Your task to perform on an android device: Open eBay Image 0: 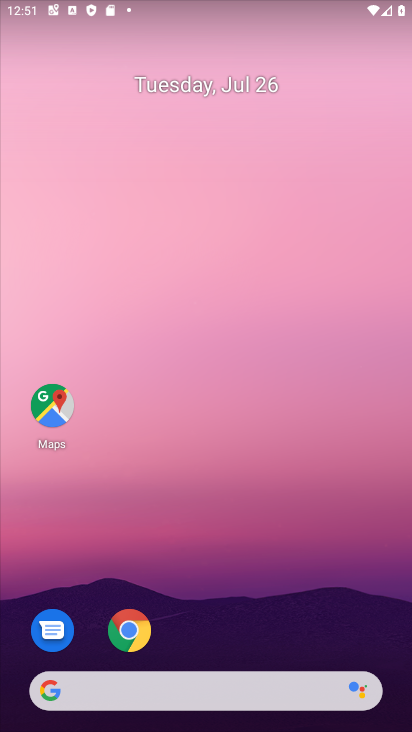
Step 0: click (131, 632)
Your task to perform on an android device: Open eBay Image 1: 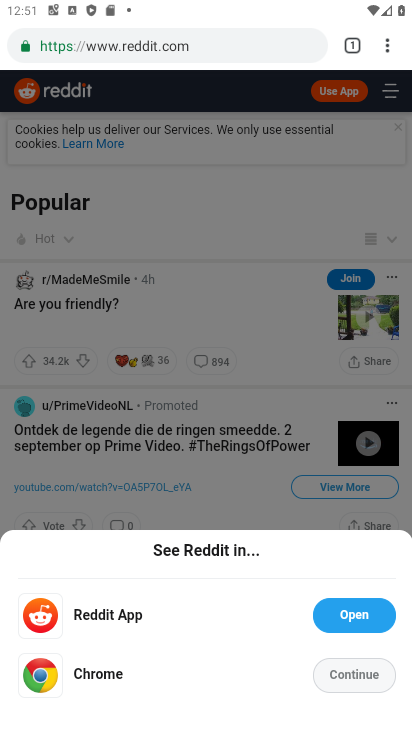
Step 1: click (214, 46)
Your task to perform on an android device: Open eBay Image 2: 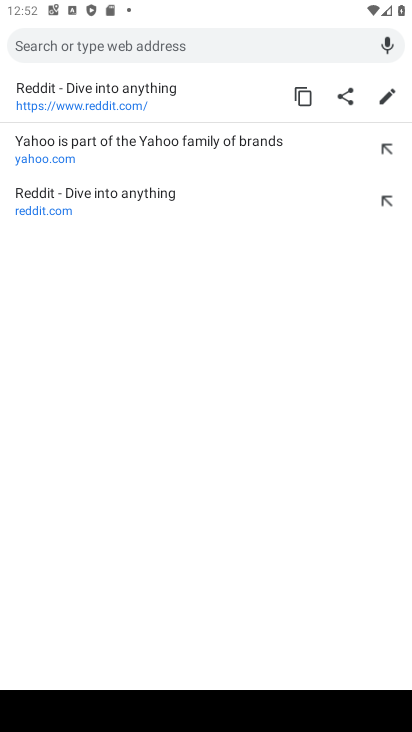
Step 2: type "eBay"
Your task to perform on an android device: Open eBay Image 3: 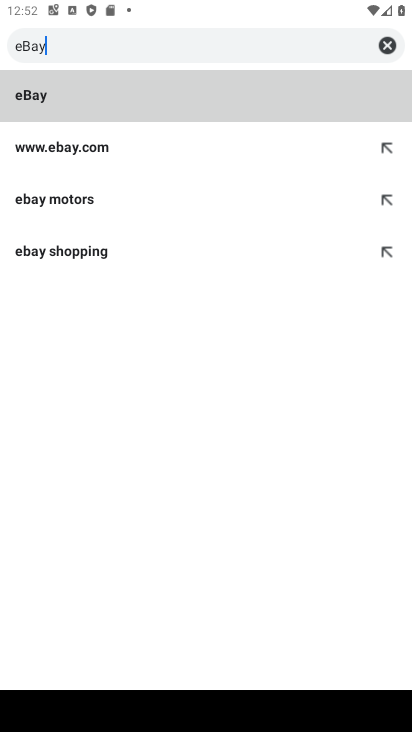
Step 3: click (38, 95)
Your task to perform on an android device: Open eBay Image 4: 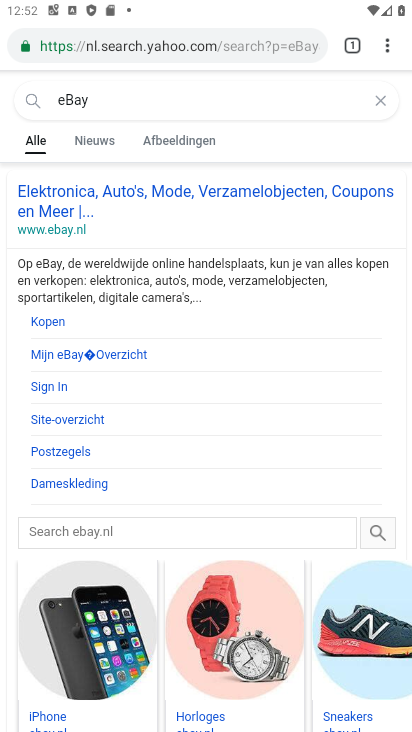
Step 4: click (45, 218)
Your task to perform on an android device: Open eBay Image 5: 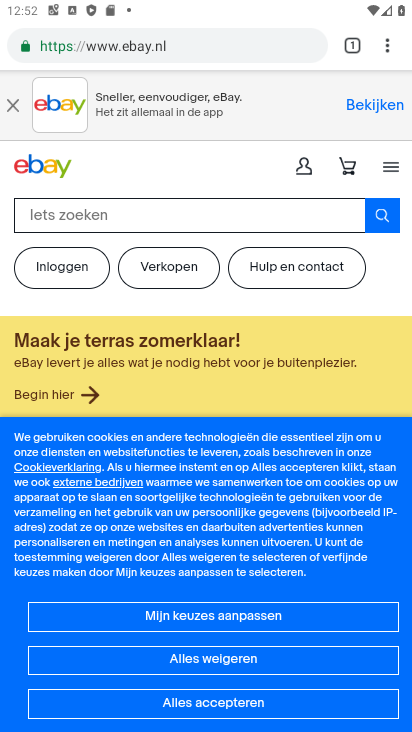
Step 5: task complete